Your task to perform on an android device: What is the news today? Image 0: 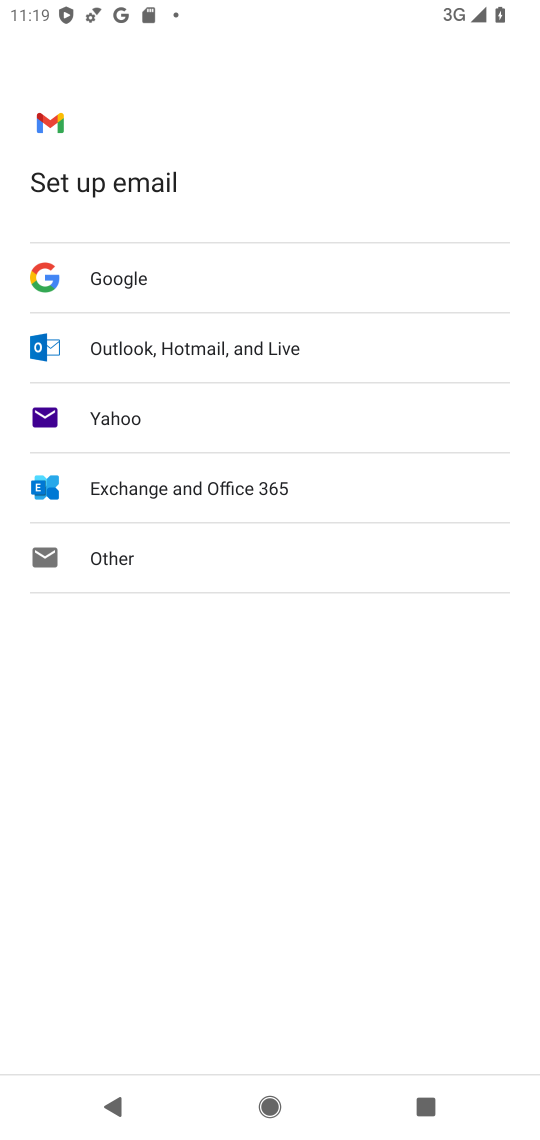
Step 0: press home button
Your task to perform on an android device: What is the news today? Image 1: 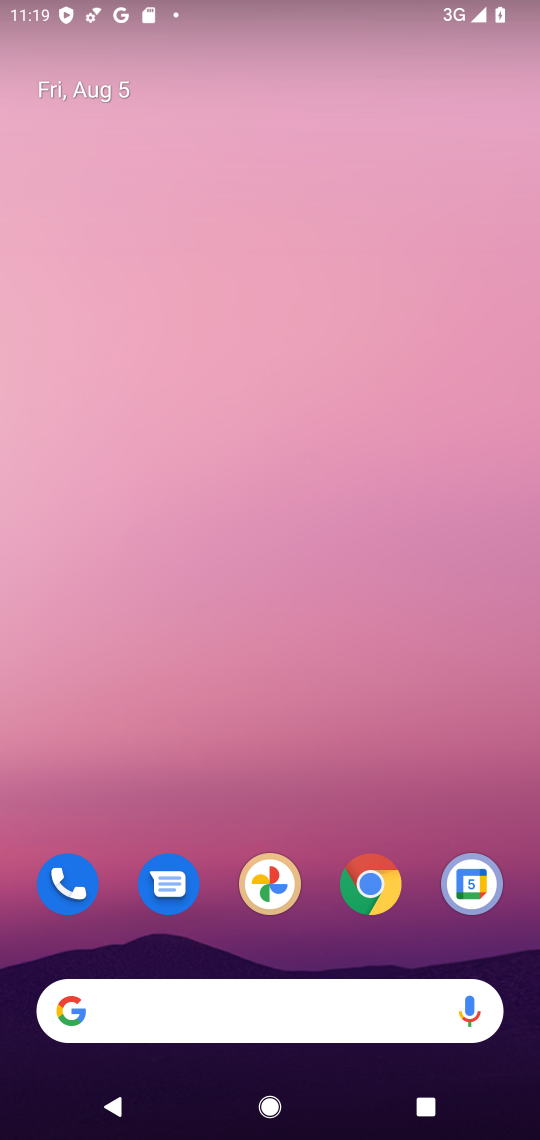
Step 1: click (301, 995)
Your task to perform on an android device: What is the news today? Image 2: 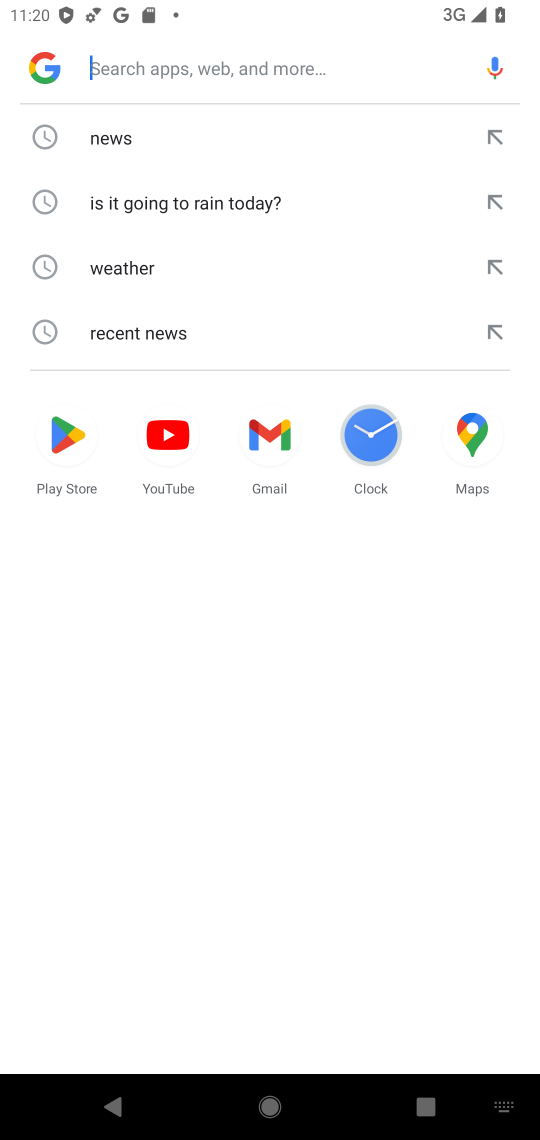
Step 2: type "what is the news today?"
Your task to perform on an android device: What is the news today? Image 3: 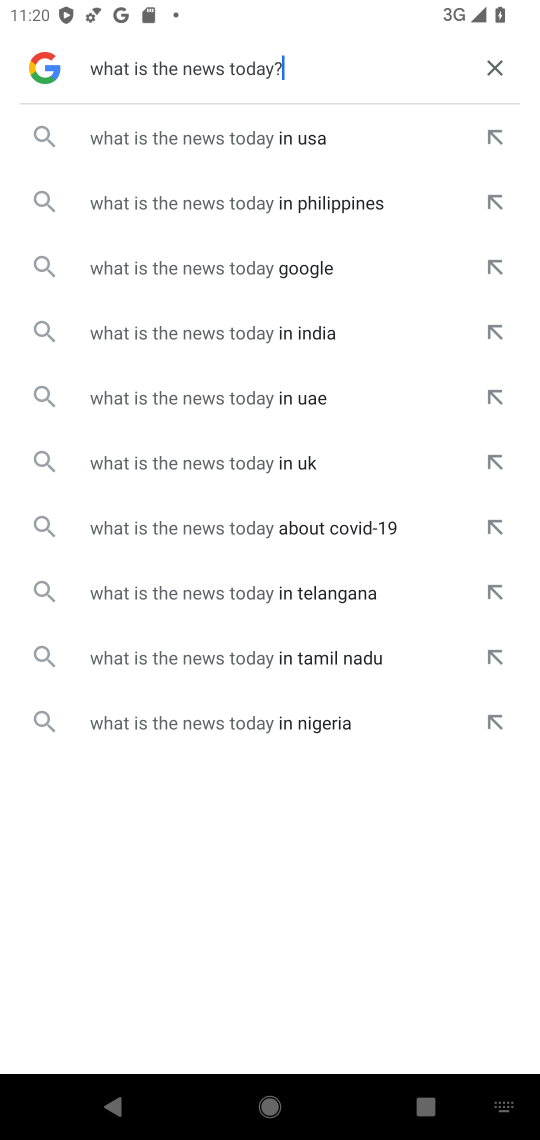
Step 3: click (272, 282)
Your task to perform on an android device: What is the news today? Image 4: 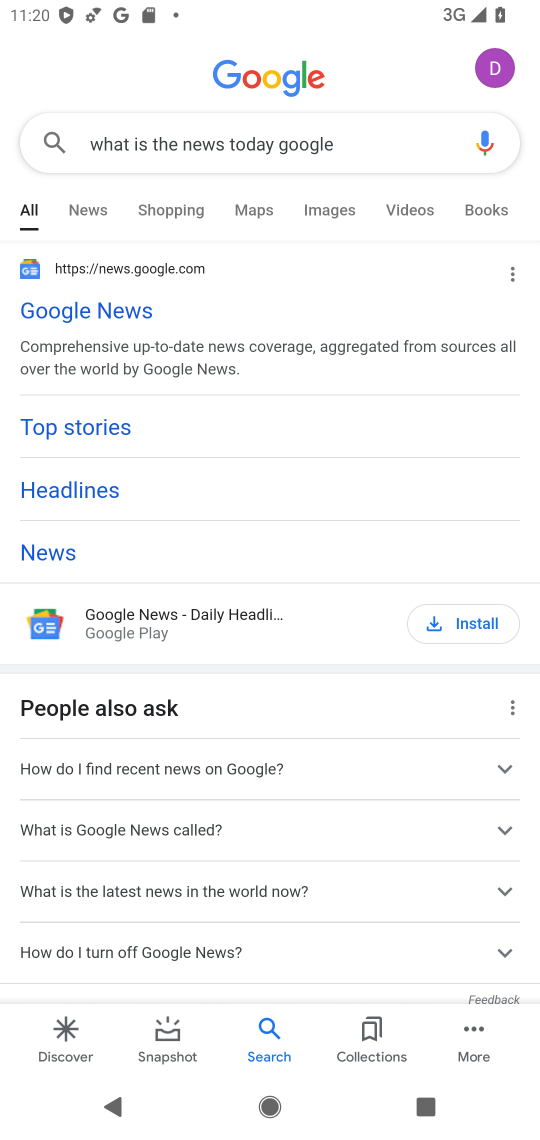
Step 4: task complete